Your task to perform on an android device: Do I have any events today? Image 0: 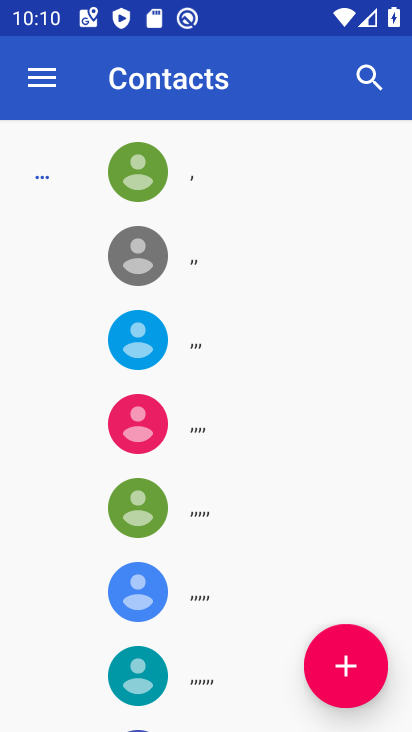
Step 0: press home button
Your task to perform on an android device: Do I have any events today? Image 1: 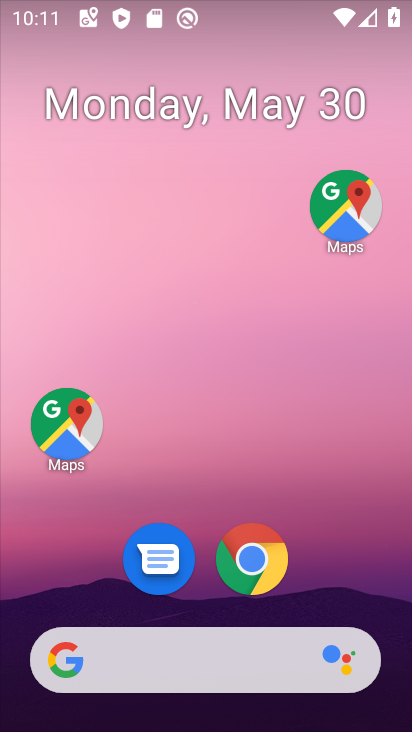
Step 1: drag from (324, 552) to (297, 7)
Your task to perform on an android device: Do I have any events today? Image 2: 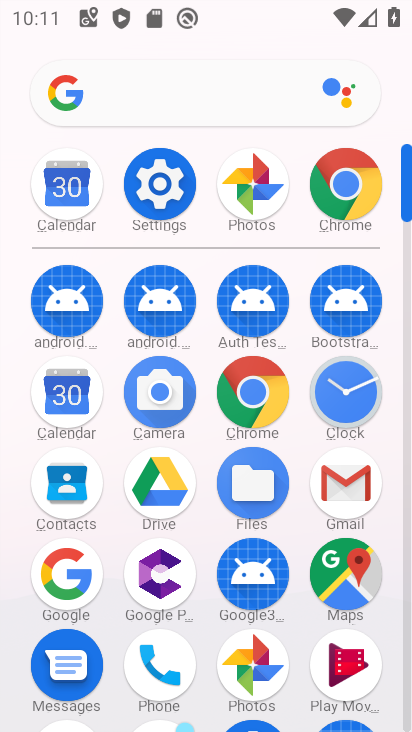
Step 2: click (67, 384)
Your task to perform on an android device: Do I have any events today? Image 3: 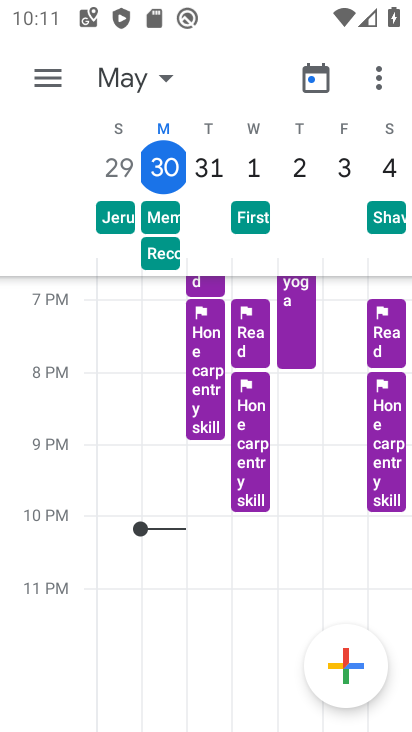
Step 3: task complete